Your task to perform on an android device: turn on showing notifications on the lock screen Image 0: 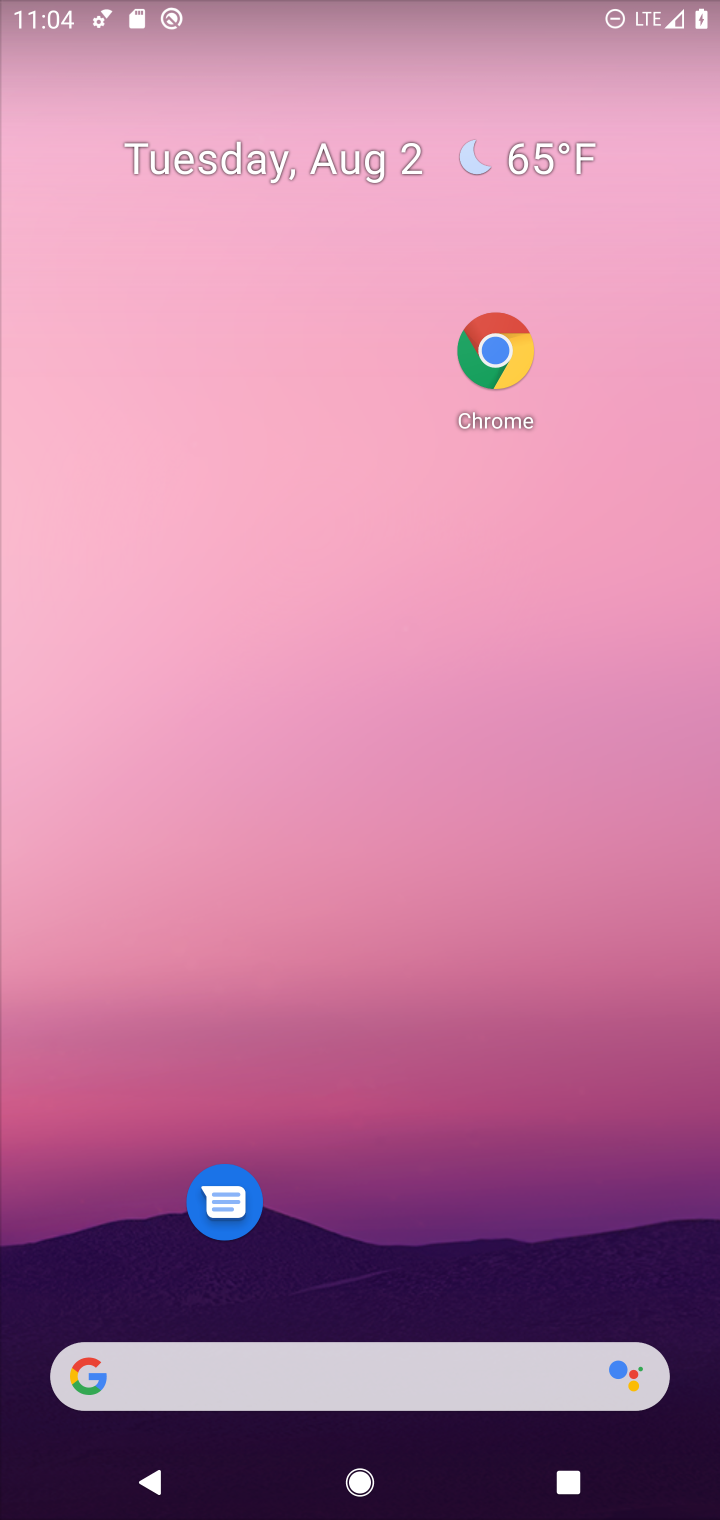
Step 0: drag from (469, 1298) to (469, 3)
Your task to perform on an android device: turn on showing notifications on the lock screen Image 1: 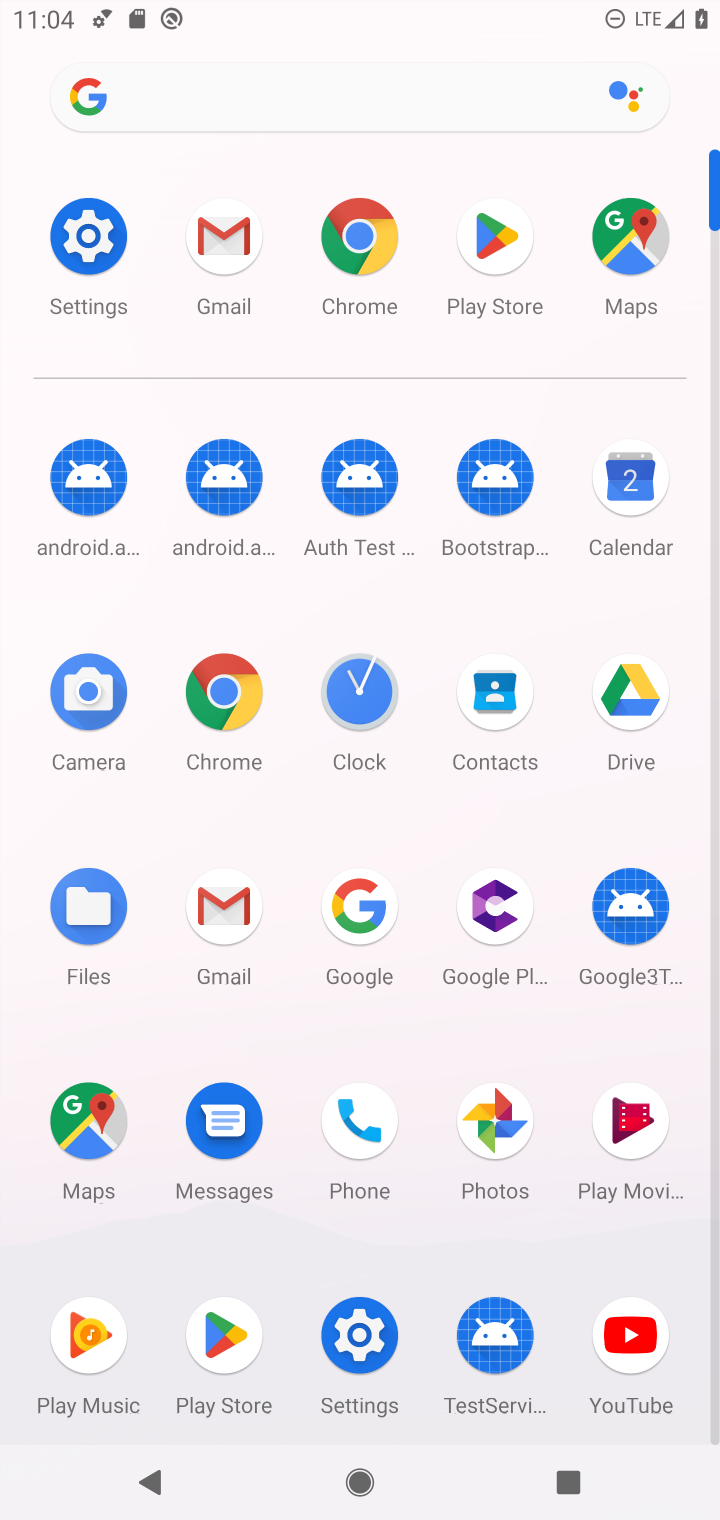
Step 1: click (91, 252)
Your task to perform on an android device: turn on showing notifications on the lock screen Image 2: 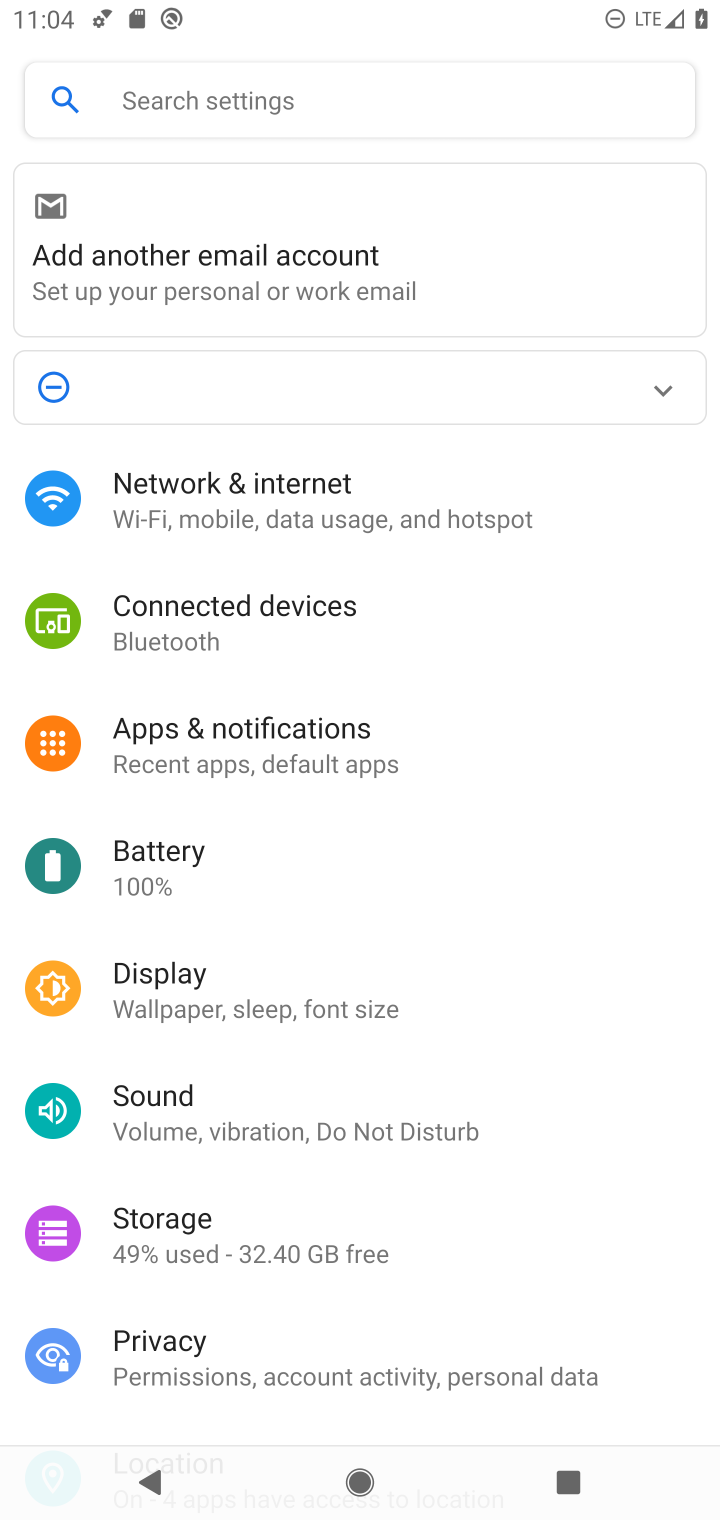
Step 2: click (162, 741)
Your task to perform on an android device: turn on showing notifications on the lock screen Image 3: 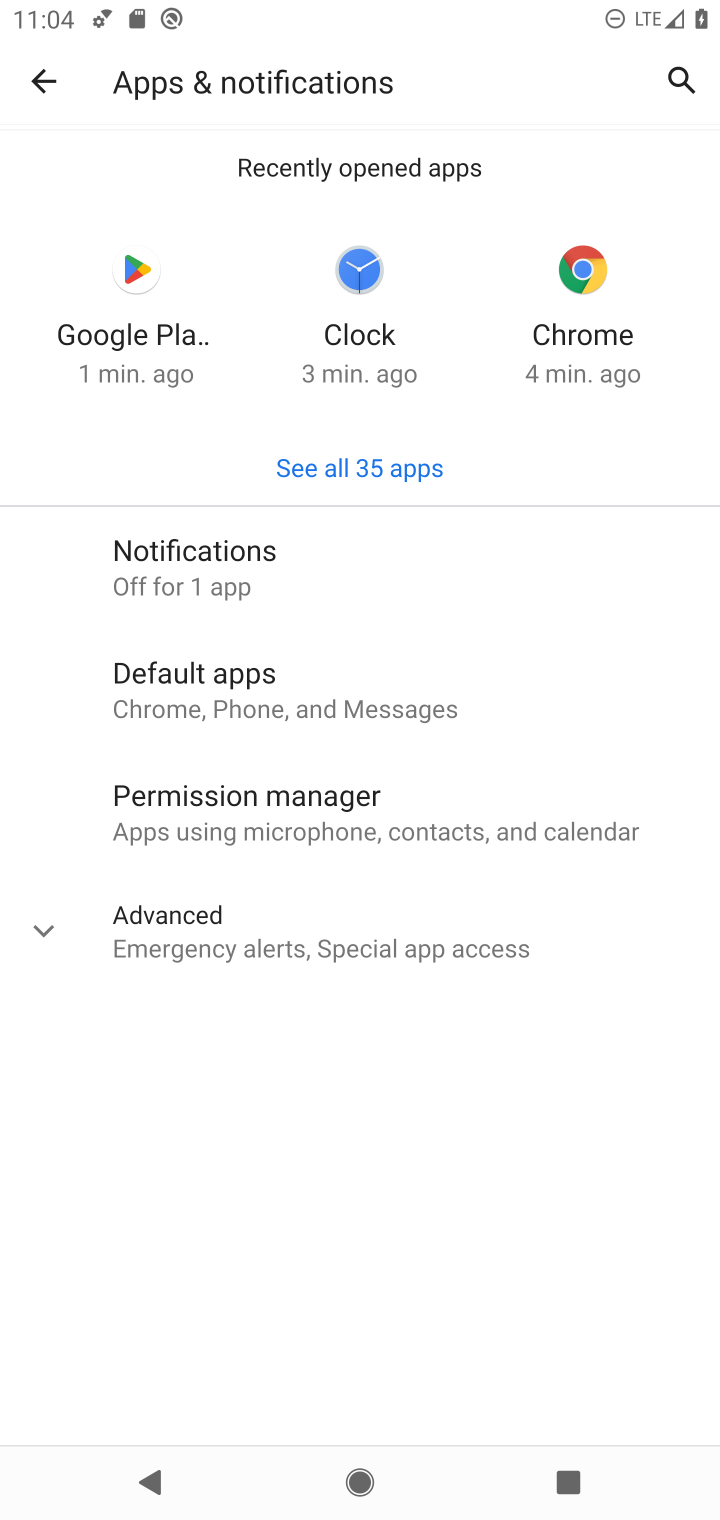
Step 3: click (159, 585)
Your task to perform on an android device: turn on showing notifications on the lock screen Image 4: 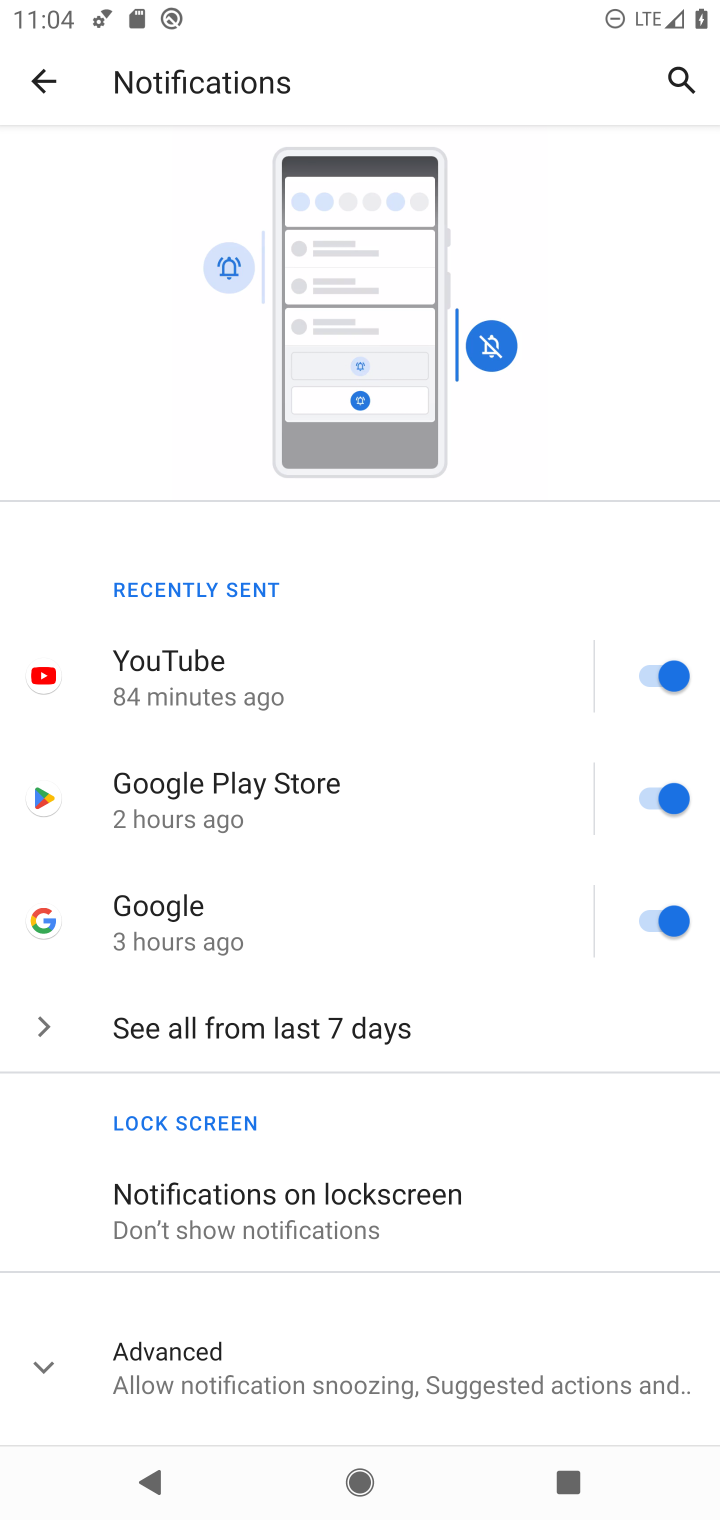
Step 4: click (243, 1209)
Your task to perform on an android device: turn on showing notifications on the lock screen Image 5: 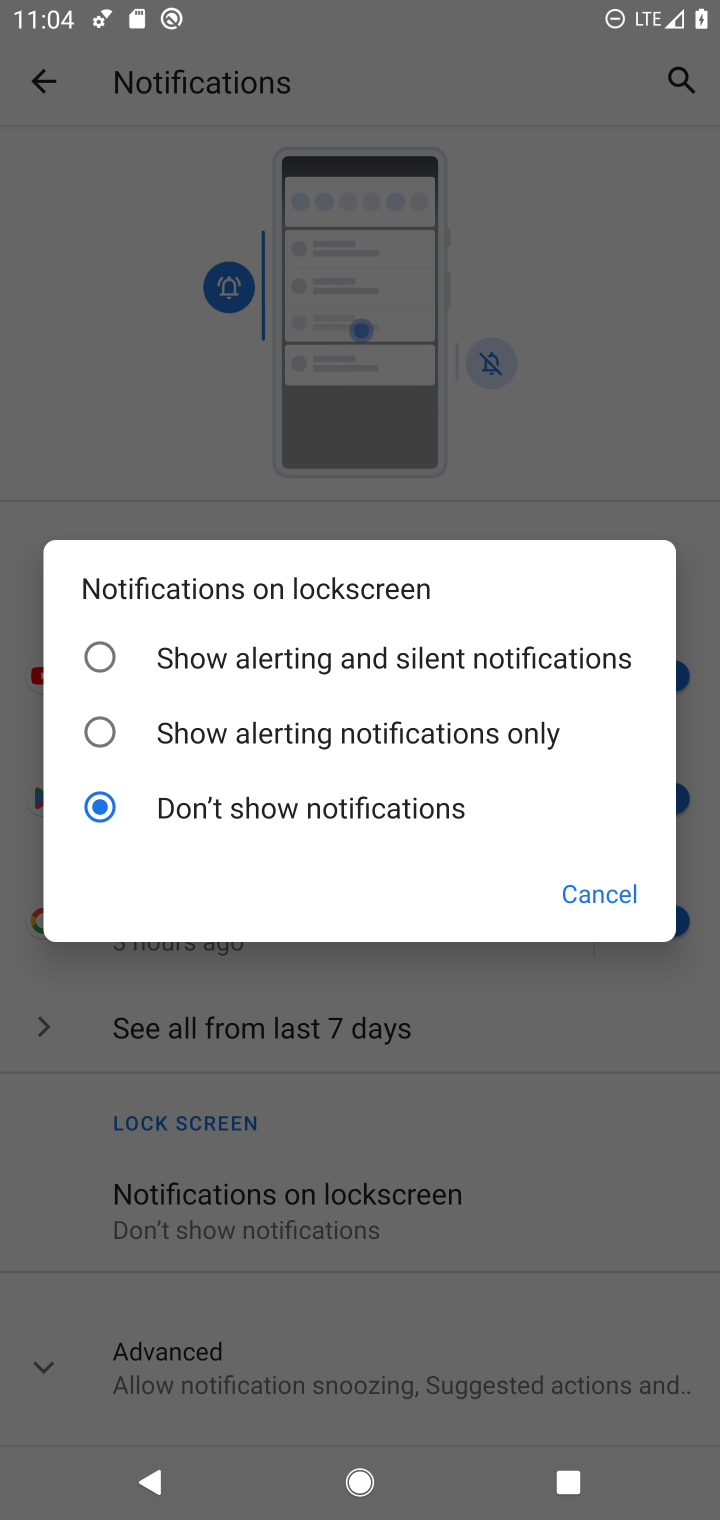
Step 5: click (96, 649)
Your task to perform on an android device: turn on showing notifications on the lock screen Image 6: 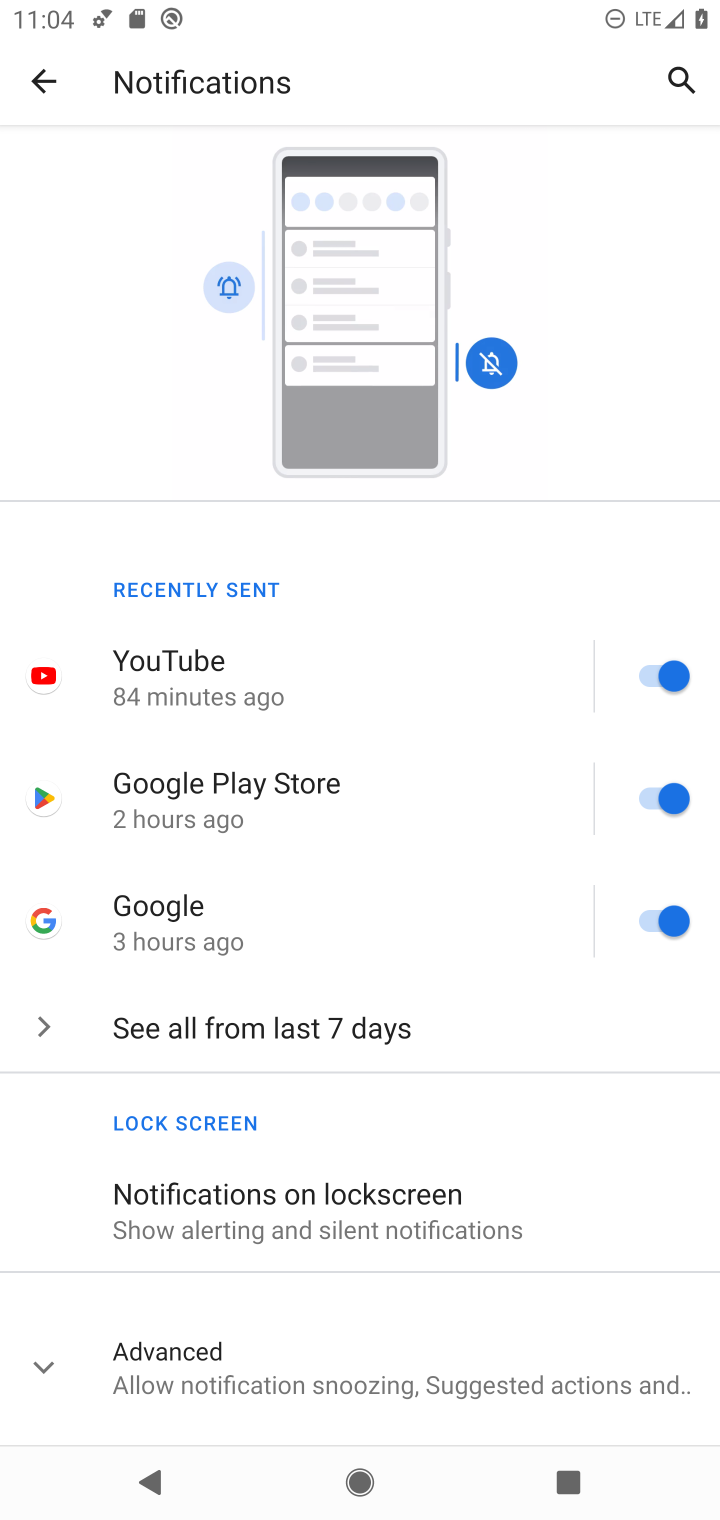
Step 6: task complete